Your task to perform on an android device: Open CNN.com Image 0: 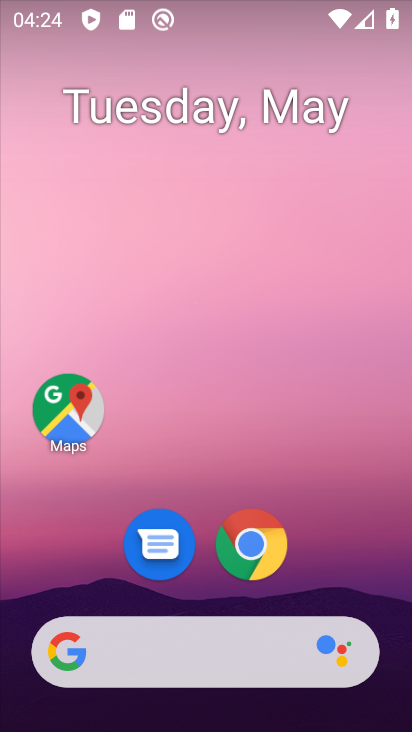
Step 0: drag from (183, 566) to (184, 305)
Your task to perform on an android device: Open CNN.com Image 1: 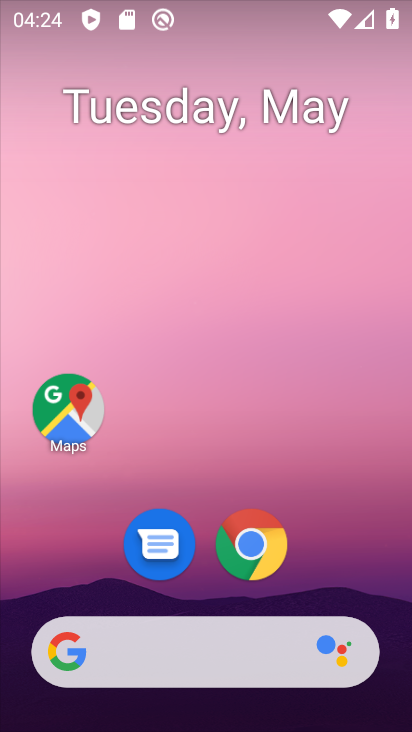
Step 1: drag from (220, 615) to (225, 116)
Your task to perform on an android device: Open CNN.com Image 2: 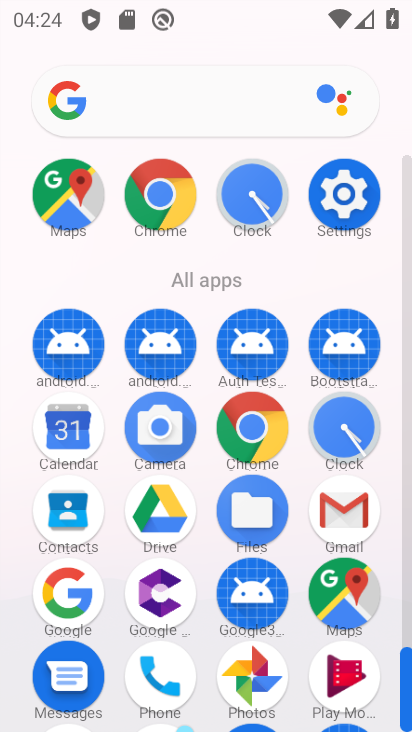
Step 2: click (66, 604)
Your task to perform on an android device: Open CNN.com Image 3: 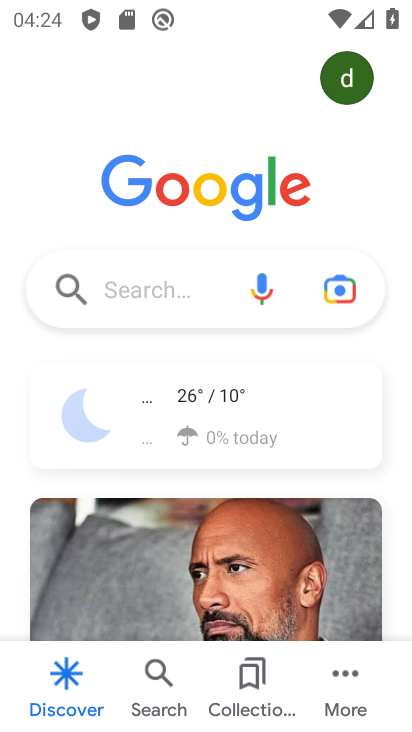
Step 3: click (181, 297)
Your task to perform on an android device: Open CNN.com Image 4: 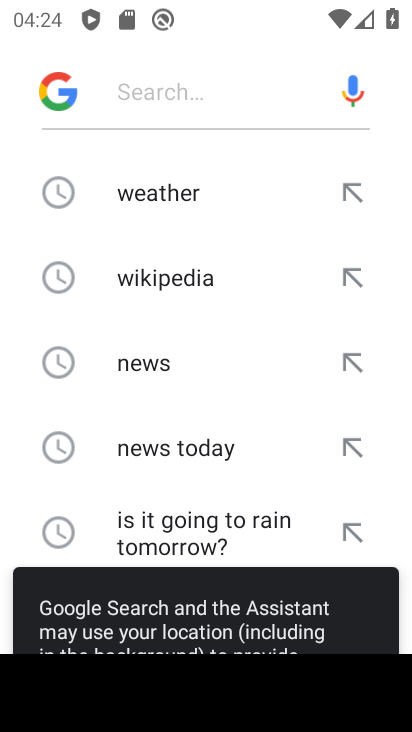
Step 4: drag from (171, 510) to (161, 267)
Your task to perform on an android device: Open CNN.com Image 5: 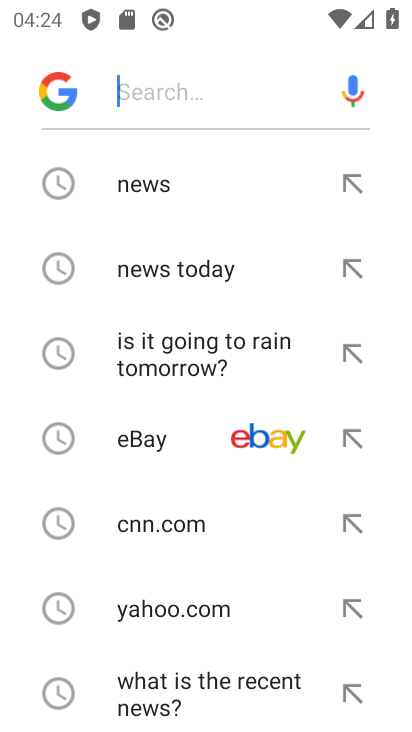
Step 5: click (180, 518)
Your task to perform on an android device: Open CNN.com Image 6: 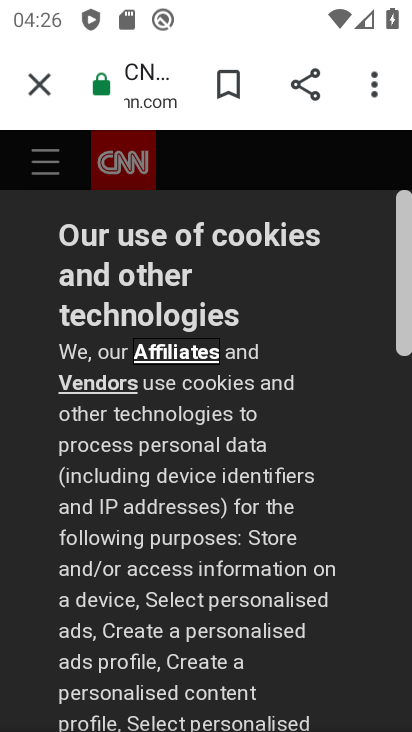
Step 6: task complete